Your task to perform on an android device: open app "DoorDash - Dasher" (install if not already installed) and go to login screen Image 0: 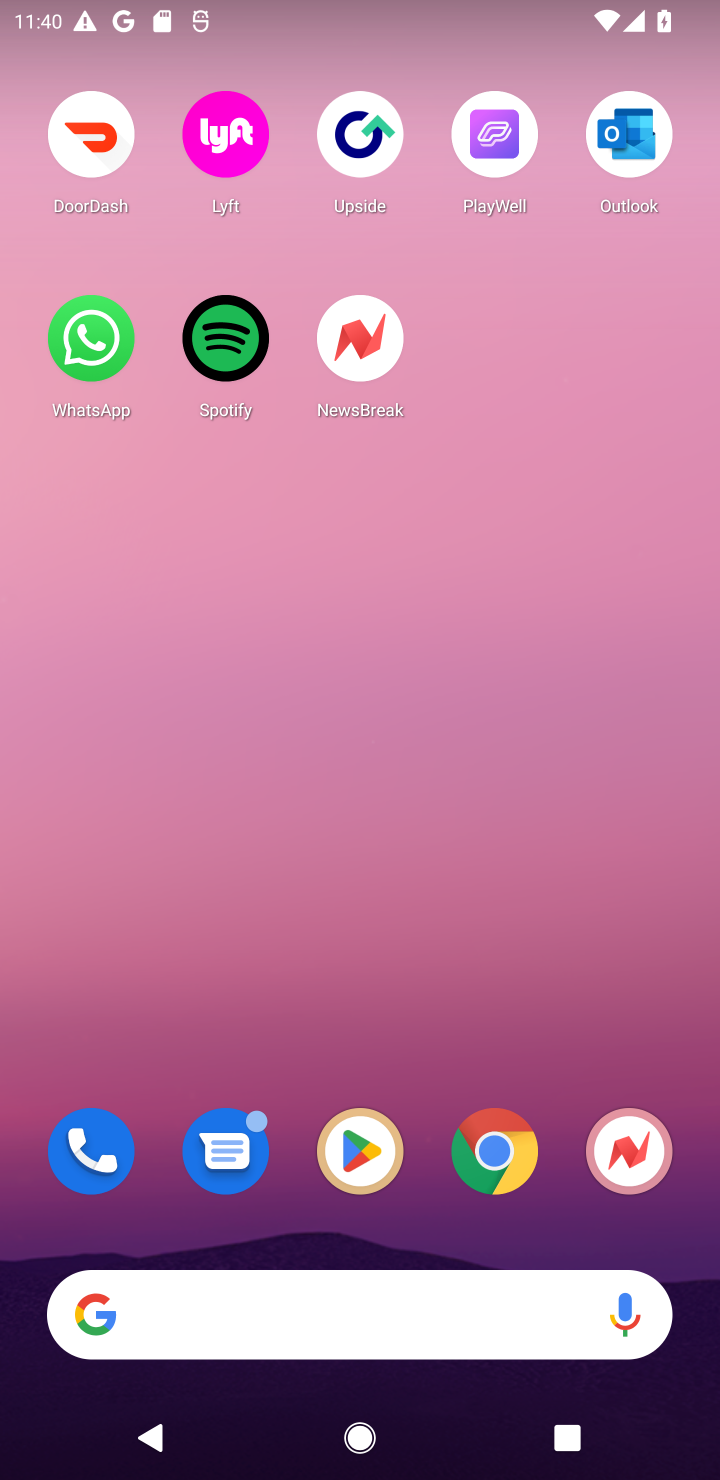
Step 0: click (373, 1134)
Your task to perform on an android device: open app "DoorDash - Dasher" (install if not already installed) and go to login screen Image 1: 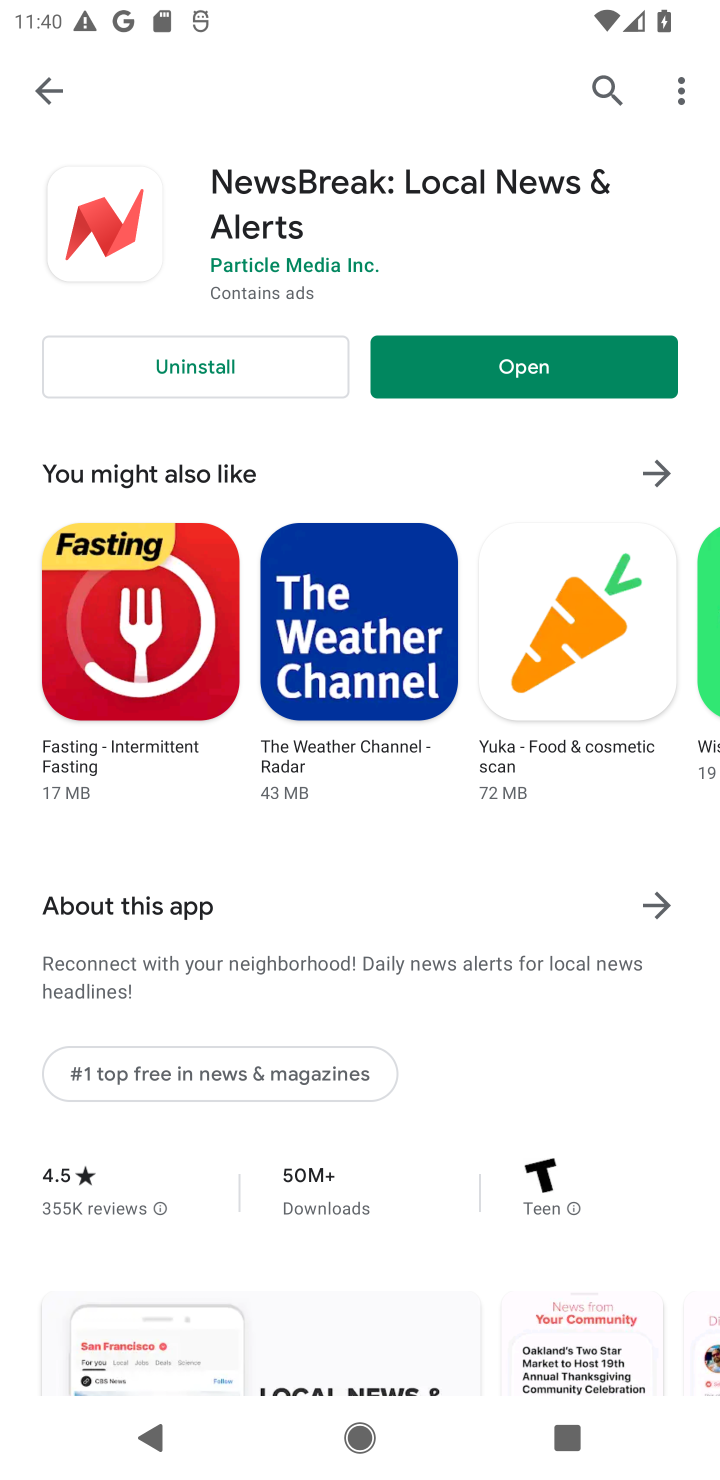
Step 1: click (588, 87)
Your task to perform on an android device: open app "DoorDash - Dasher" (install if not already installed) and go to login screen Image 2: 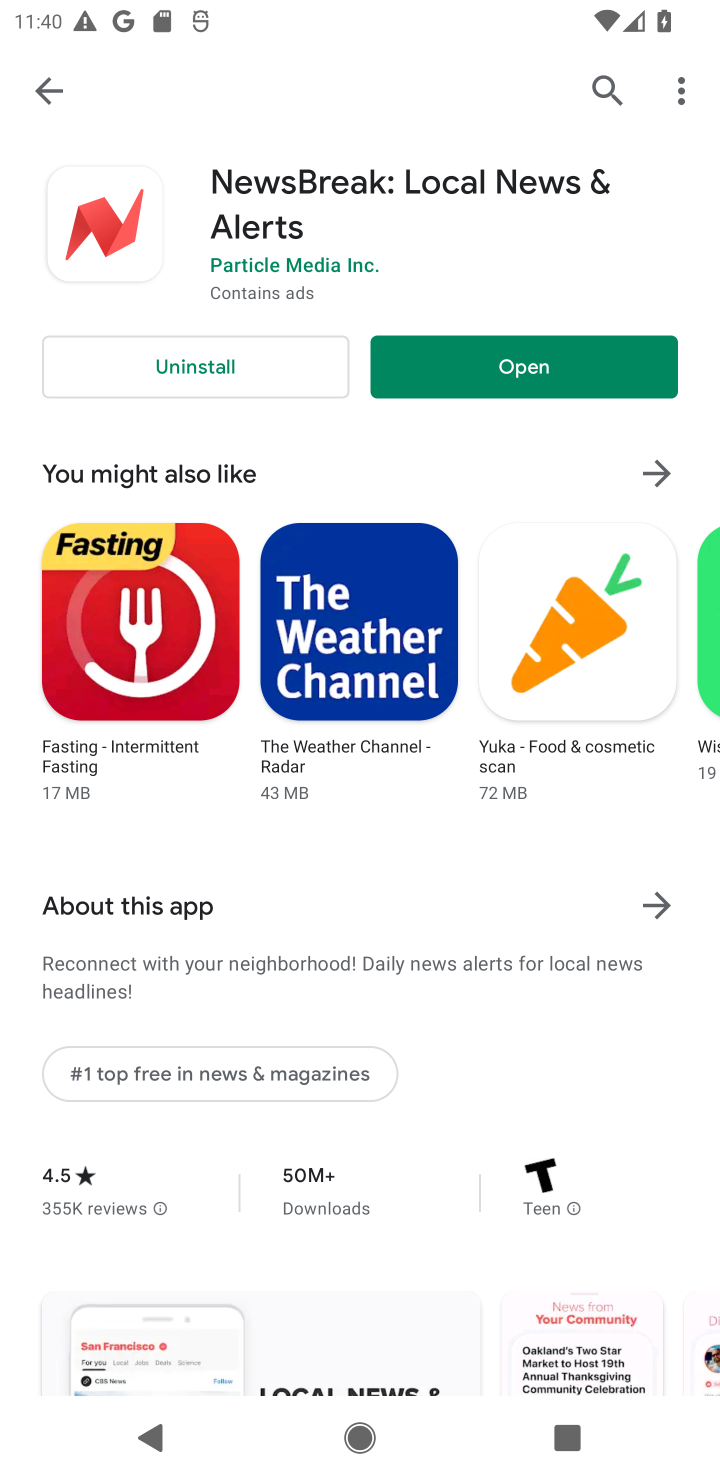
Step 2: click (595, 84)
Your task to perform on an android device: open app "DoorDash - Dasher" (install if not already installed) and go to login screen Image 3: 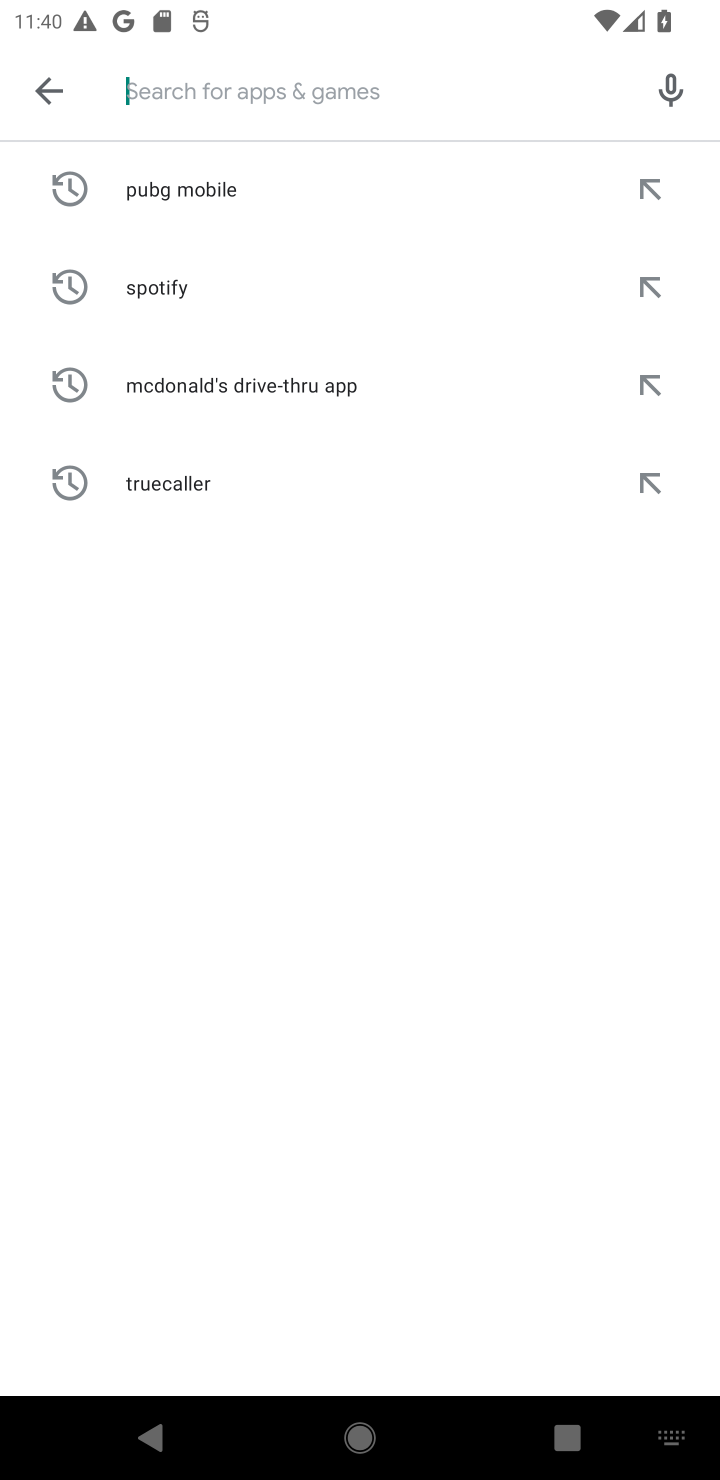
Step 3: type "DoorDash - Dasher"
Your task to perform on an android device: open app "DoorDash - Dasher" (install if not already installed) and go to login screen Image 4: 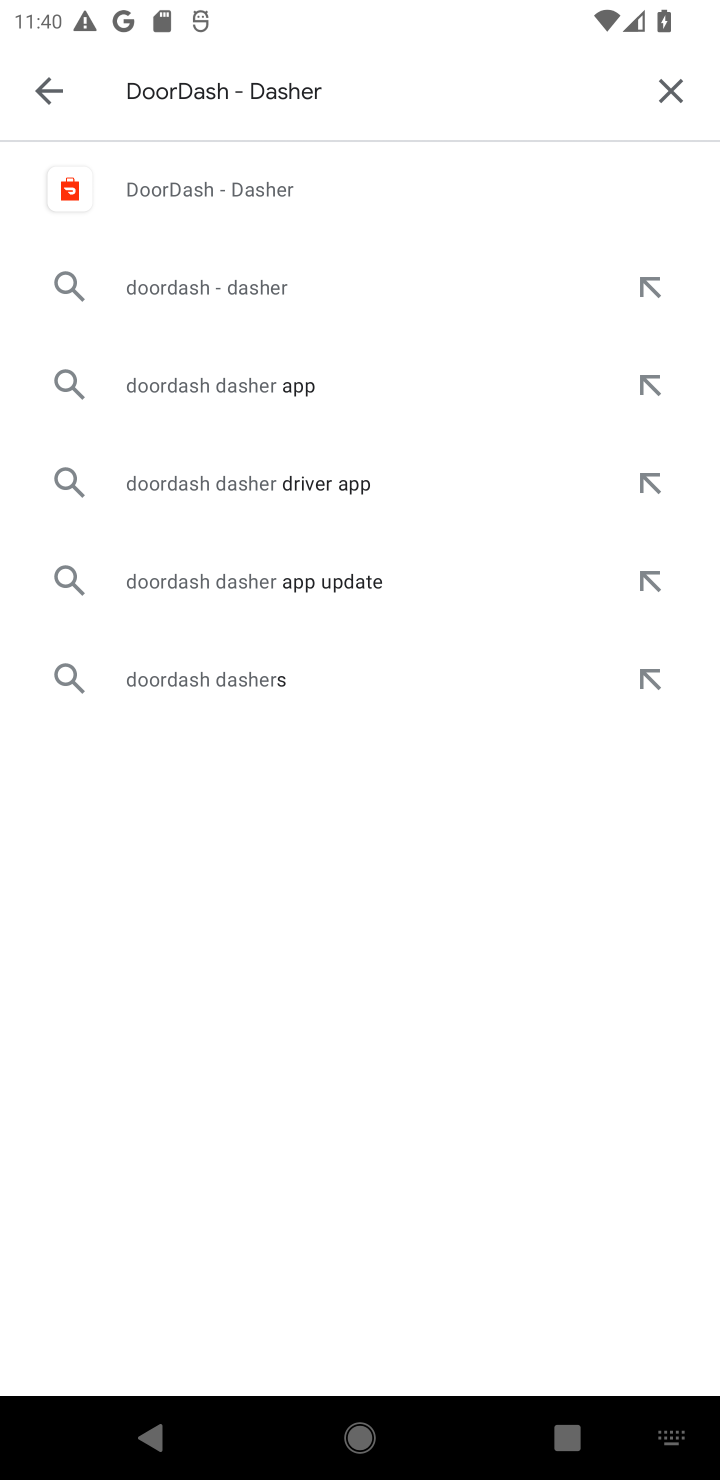
Step 4: click (288, 170)
Your task to perform on an android device: open app "DoorDash - Dasher" (install if not already installed) and go to login screen Image 5: 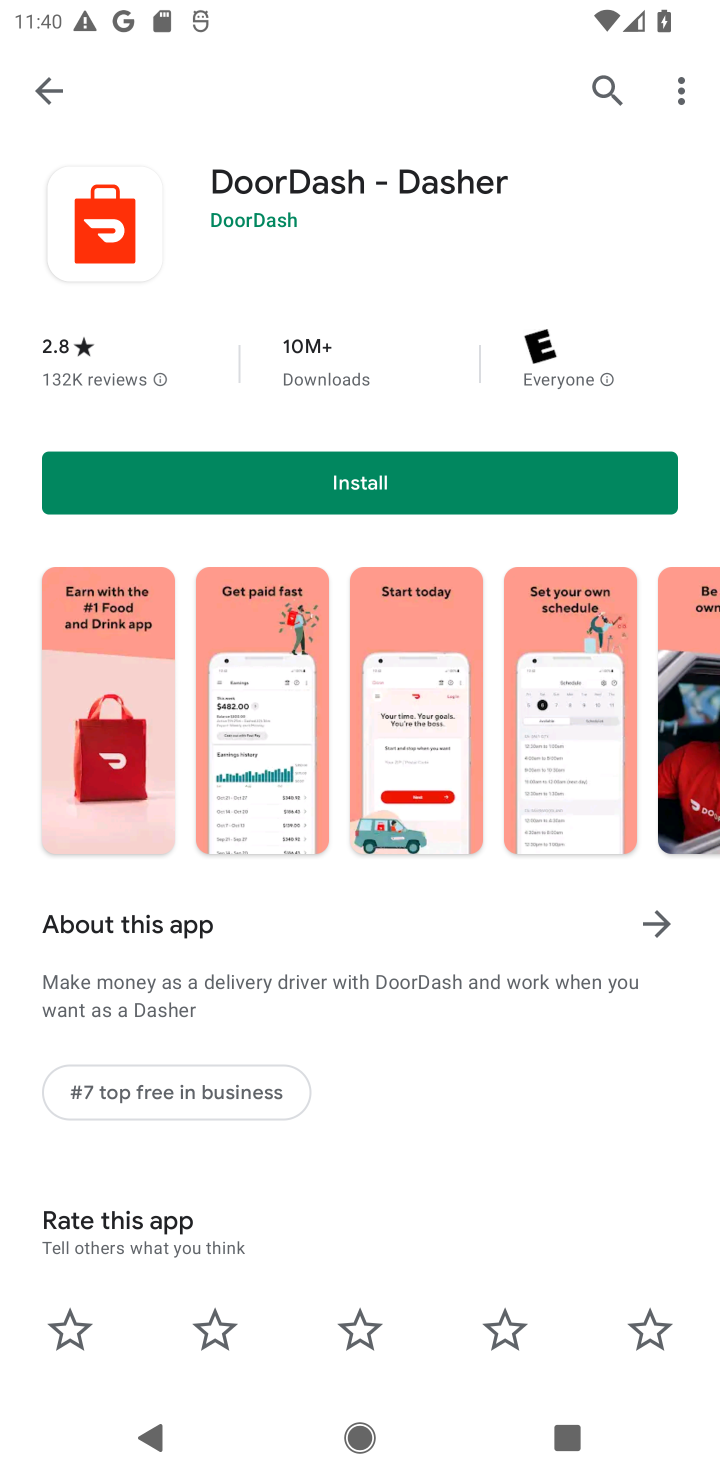
Step 5: click (360, 470)
Your task to perform on an android device: open app "DoorDash - Dasher" (install if not already installed) and go to login screen Image 6: 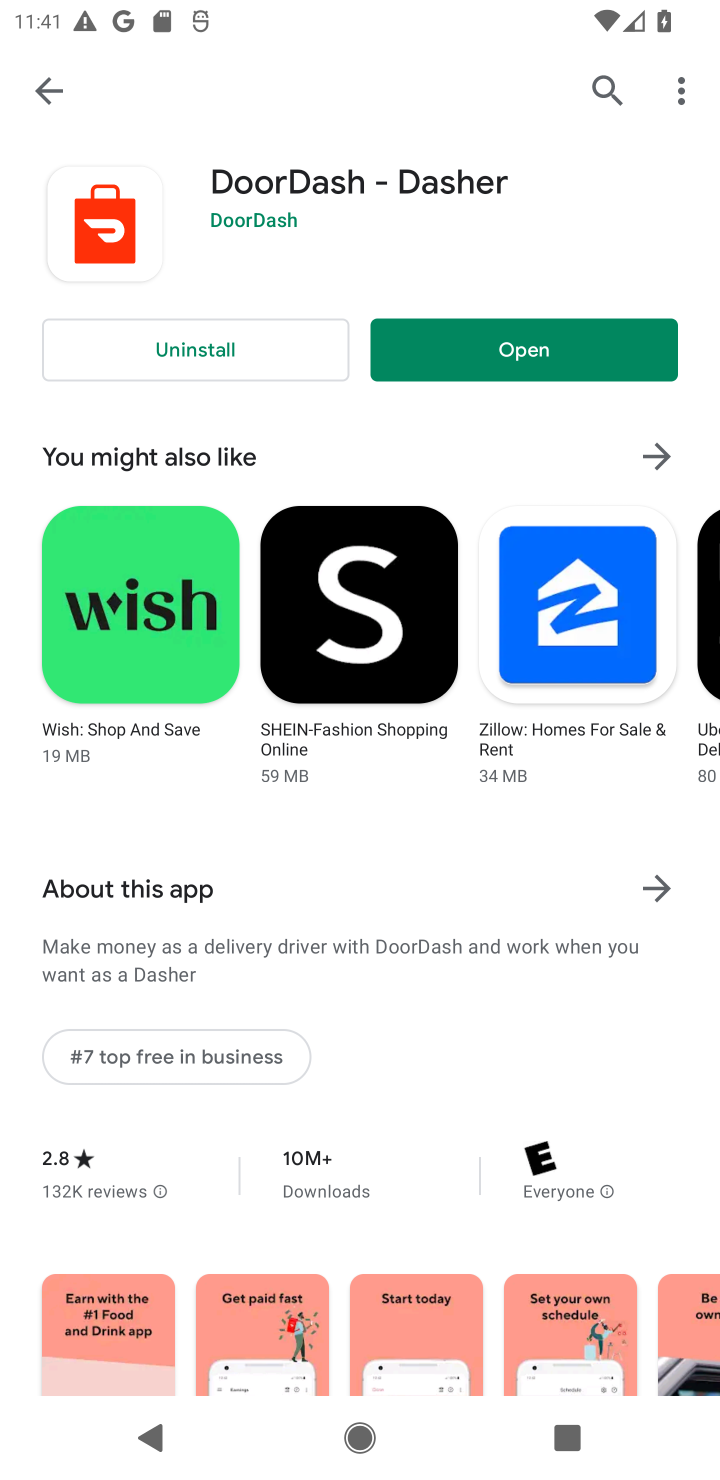
Step 6: click (496, 331)
Your task to perform on an android device: open app "DoorDash - Dasher" (install if not already installed) and go to login screen Image 7: 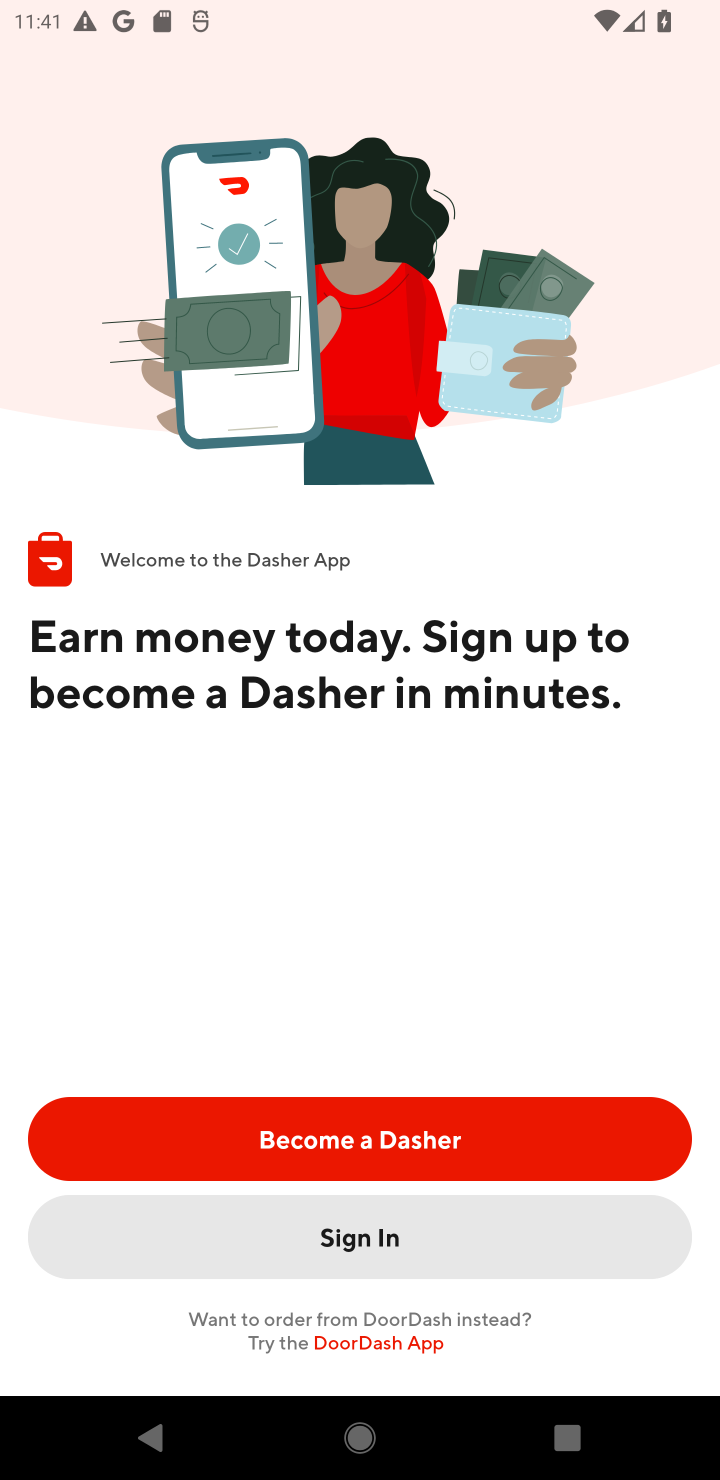
Step 7: task complete